Your task to perform on an android device: manage bookmarks in the chrome app Image 0: 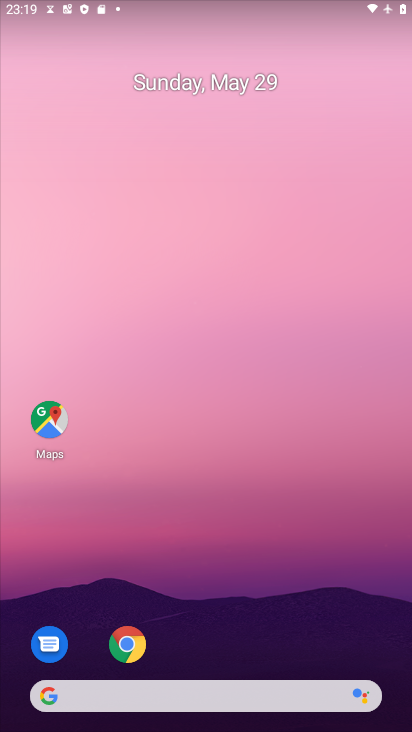
Step 0: drag from (271, 598) to (257, 299)
Your task to perform on an android device: manage bookmarks in the chrome app Image 1: 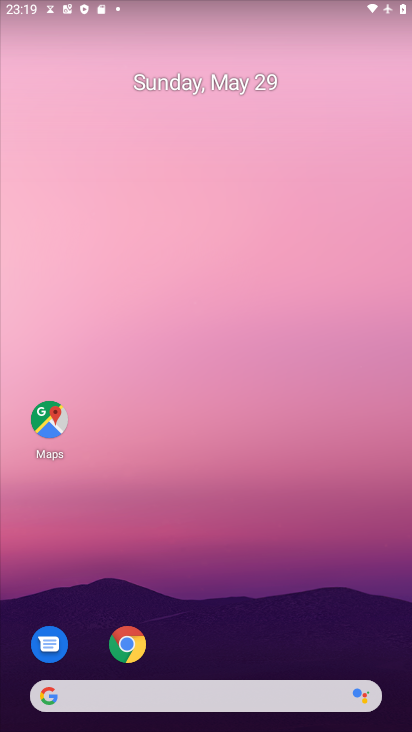
Step 1: drag from (243, 621) to (239, 282)
Your task to perform on an android device: manage bookmarks in the chrome app Image 2: 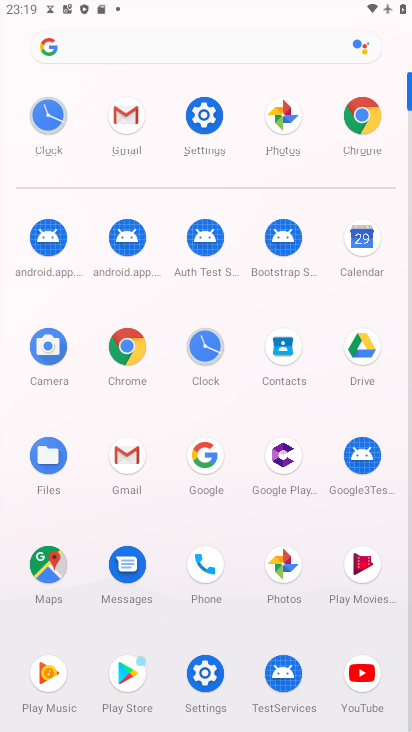
Step 2: click (361, 112)
Your task to perform on an android device: manage bookmarks in the chrome app Image 3: 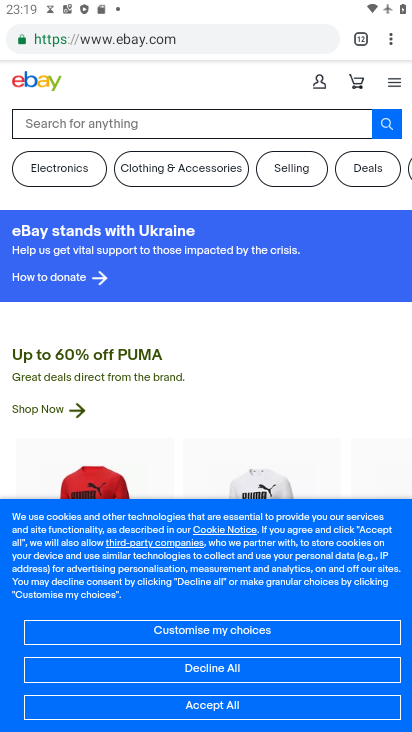
Step 3: click (387, 30)
Your task to perform on an android device: manage bookmarks in the chrome app Image 4: 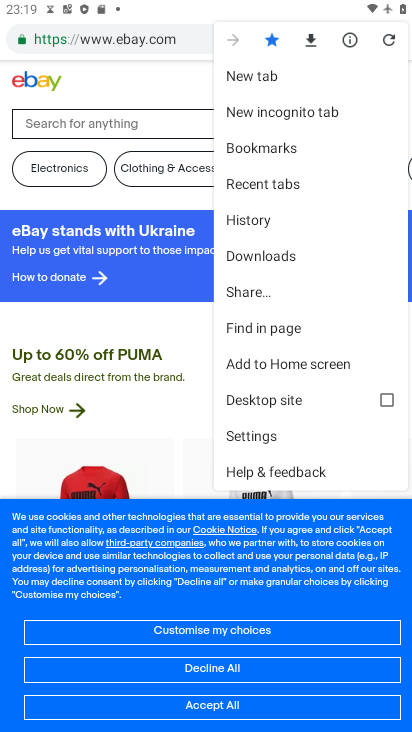
Step 4: click (241, 143)
Your task to perform on an android device: manage bookmarks in the chrome app Image 5: 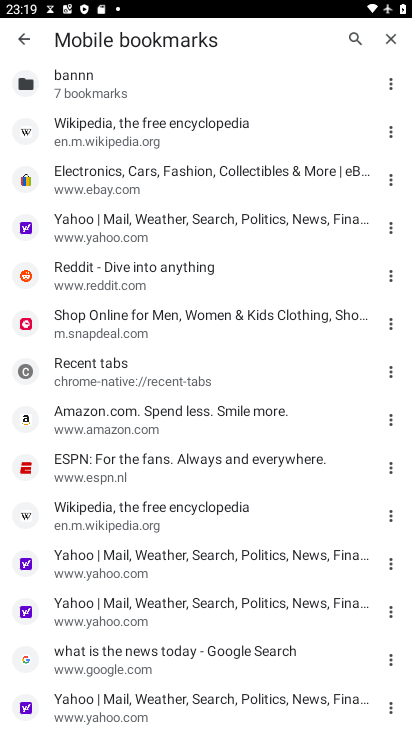
Step 5: click (98, 177)
Your task to perform on an android device: manage bookmarks in the chrome app Image 6: 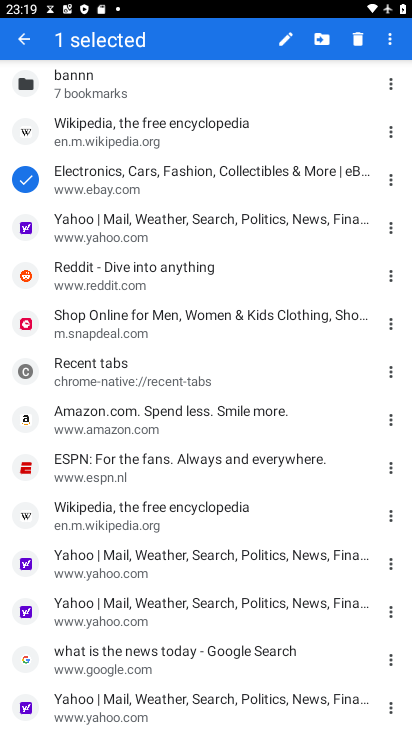
Step 6: click (317, 44)
Your task to perform on an android device: manage bookmarks in the chrome app Image 7: 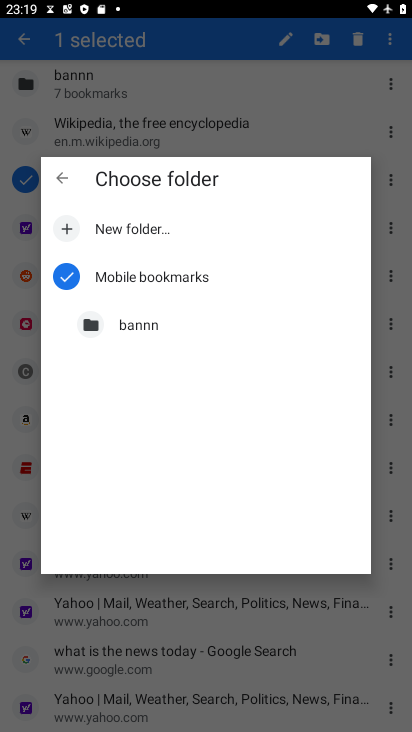
Step 7: click (137, 322)
Your task to perform on an android device: manage bookmarks in the chrome app Image 8: 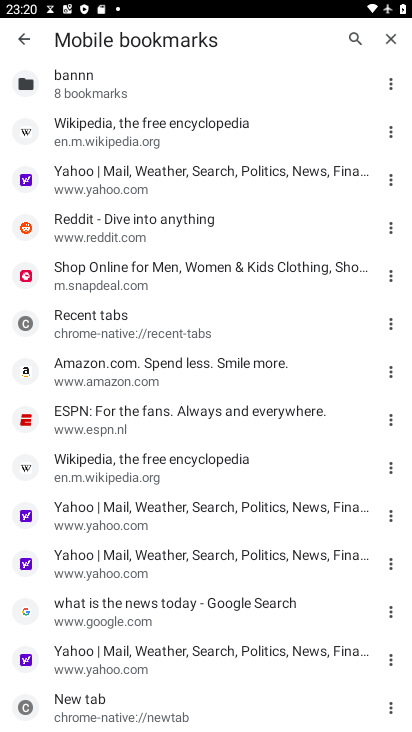
Step 8: task complete